Your task to perform on an android device: turn on the 12-hour format for clock Image 0: 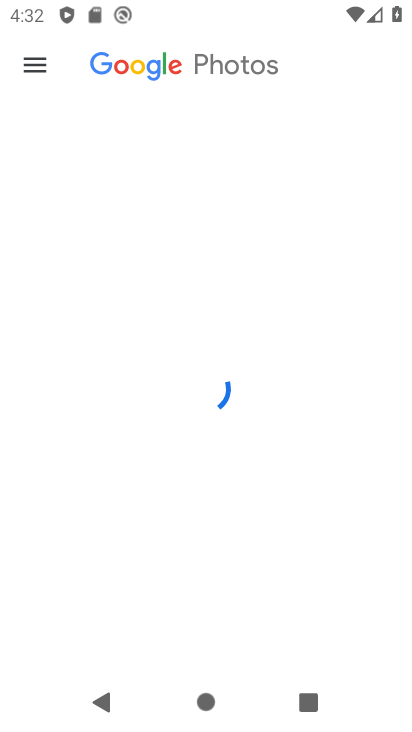
Step 0: press home button
Your task to perform on an android device: turn on the 12-hour format for clock Image 1: 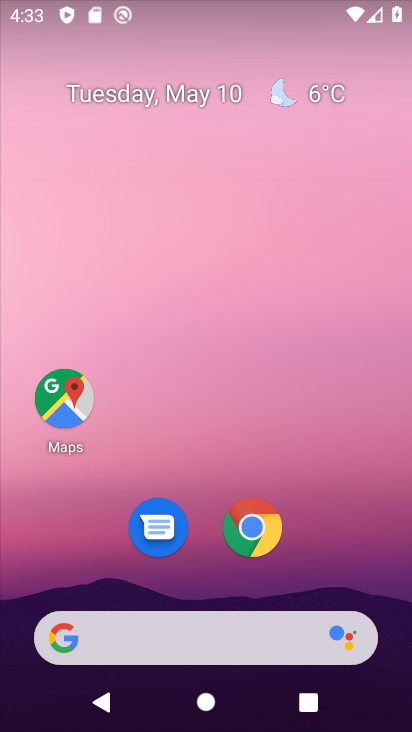
Step 1: drag from (338, 592) to (347, 18)
Your task to perform on an android device: turn on the 12-hour format for clock Image 2: 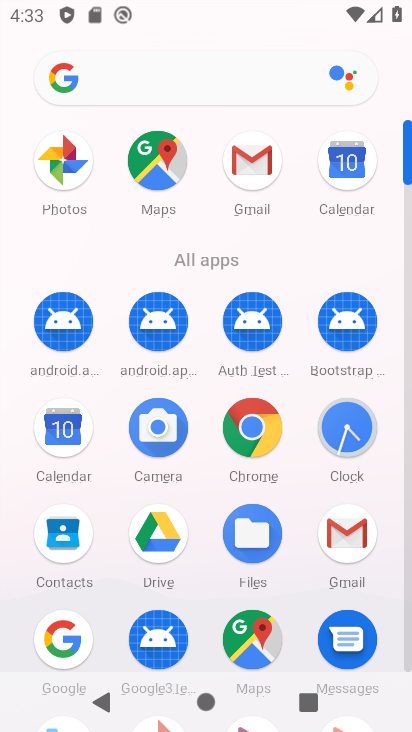
Step 2: click (353, 429)
Your task to perform on an android device: turn on the 12-hour format for clock Image 3: 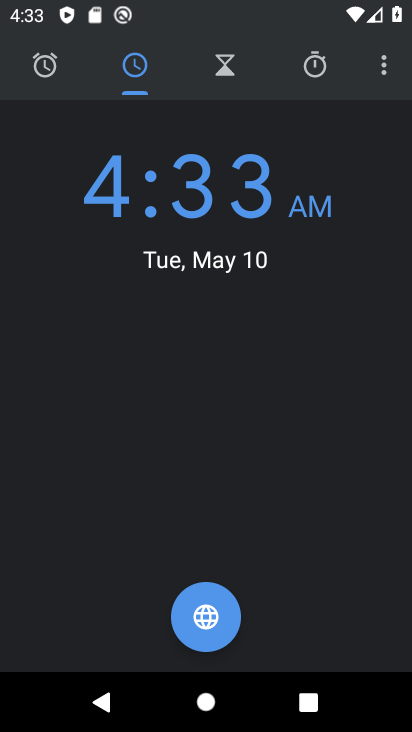
Step 3: click (379, 73)
Your task to perform on an android device: turn on the 12-hour format for clock Image 4: 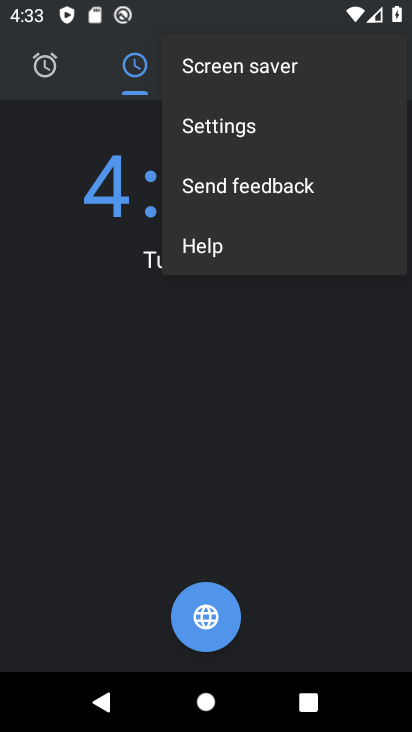
Step 4: click (340, 131)
Your task to perform on an android device: turn on the 12-hour format for clock Image 5: 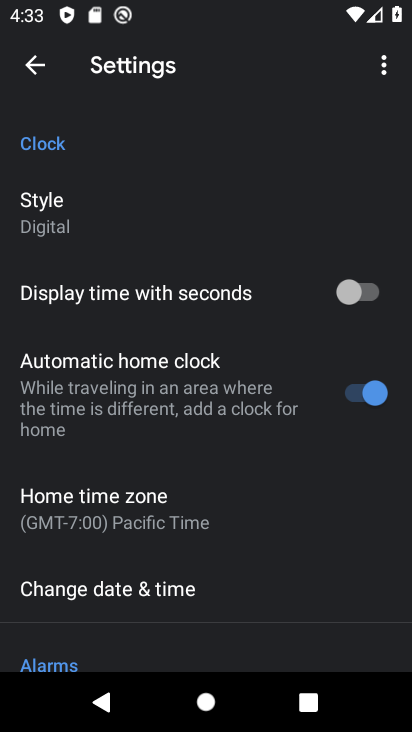
Step 5: click (152, 575)
Your task to perform on an android device: turn on the 12-hour format for clock Image 6: 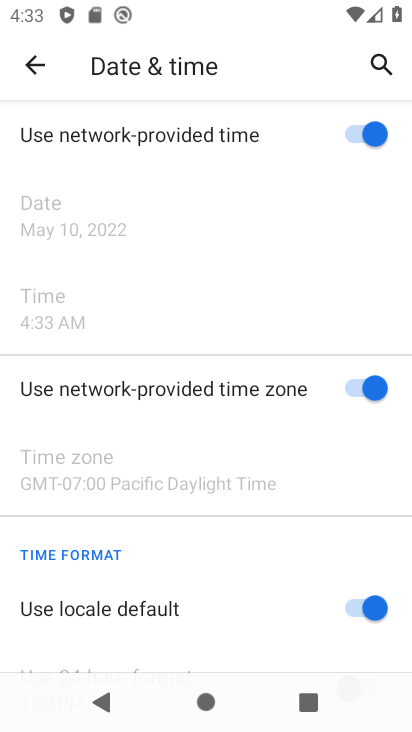
Step 6: task complete